Your task to perform on an android device: Install the Facebook app Image 0: 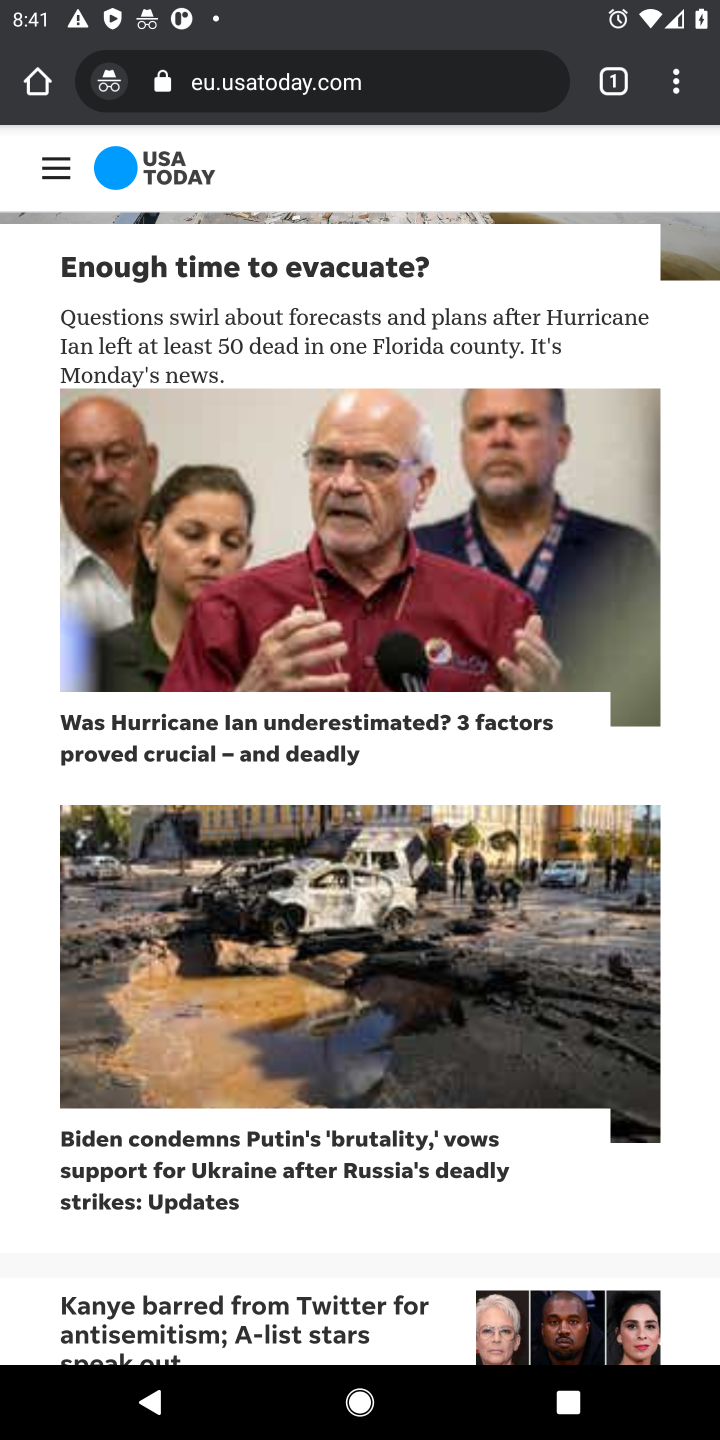
Step 0: press home button
Your task to perform on an android device: Install the Facebook app Image 1: 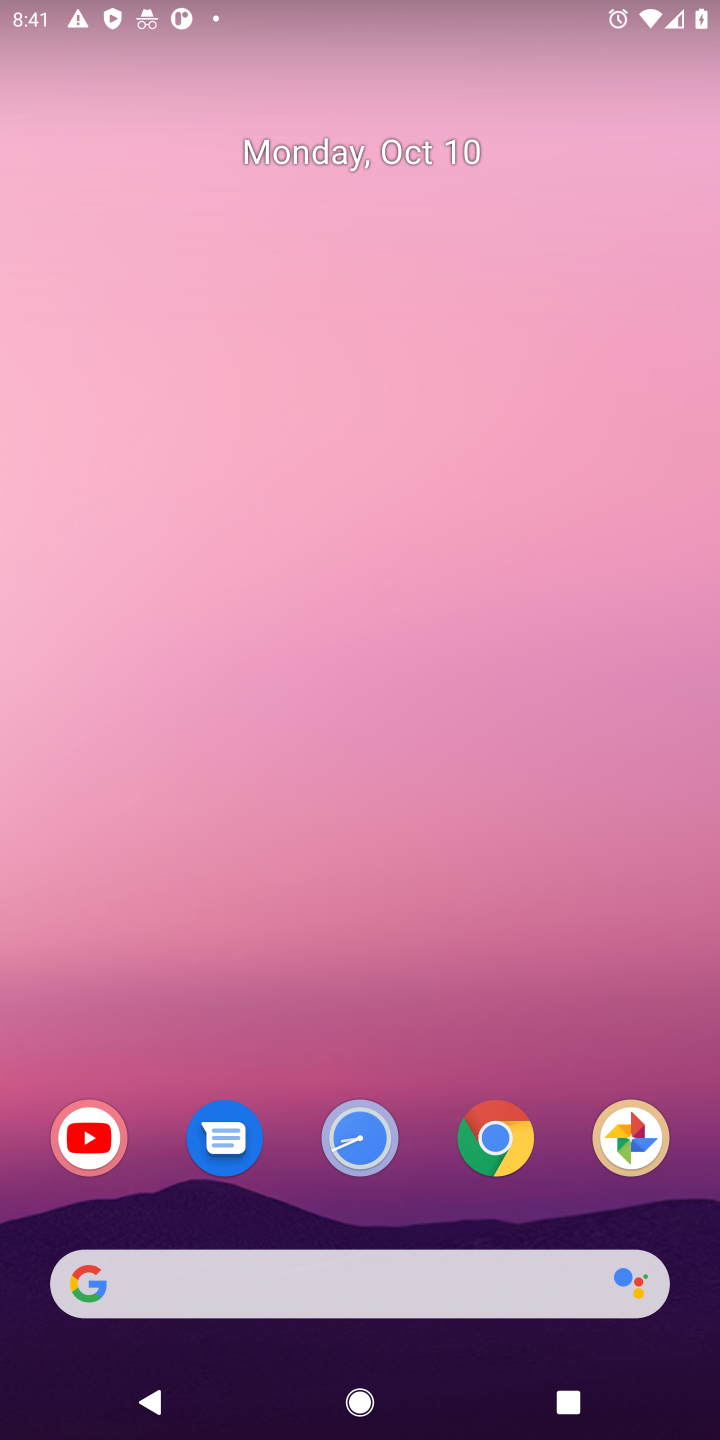
Step 1: drag from (404, 1203) to (459, 213)
Your task to perform on an android device: Install the Facebook app Image 2: 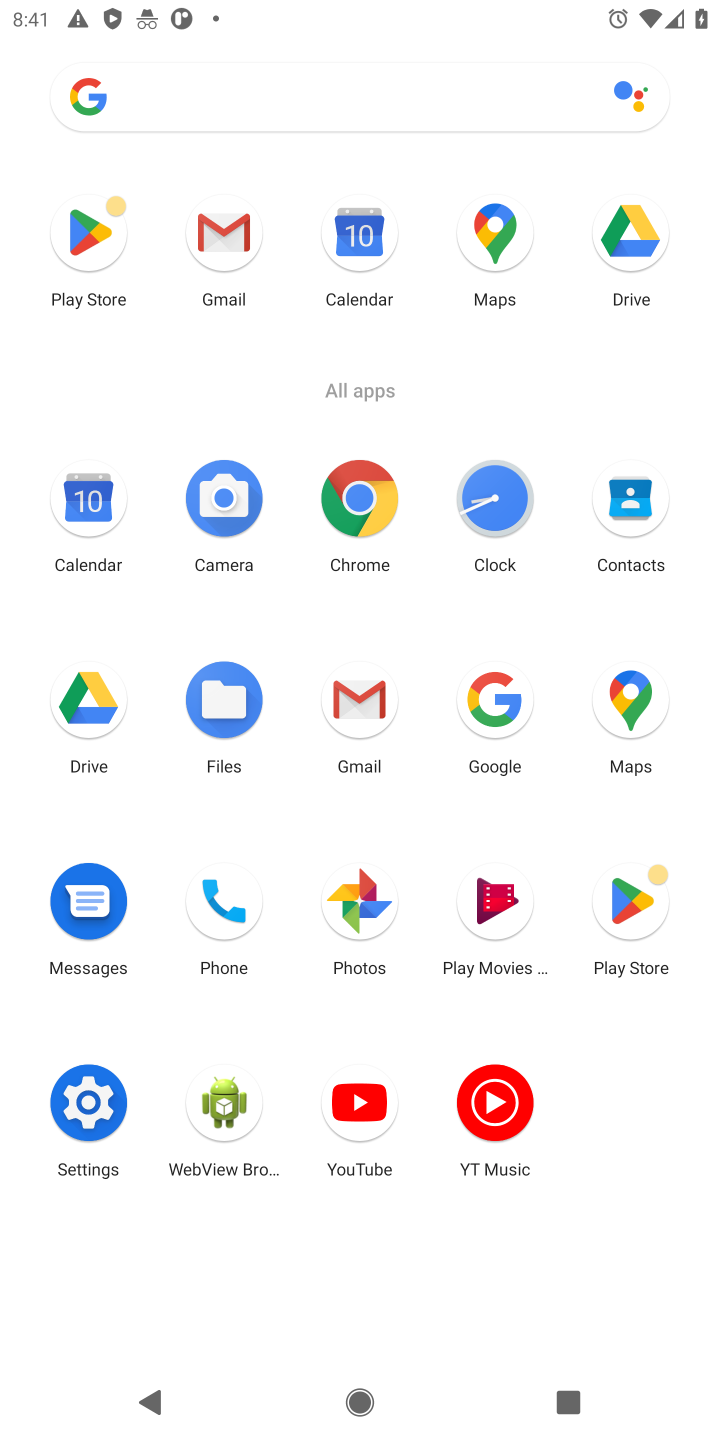
Step 2: click (631, 908)
Your task to perform on an android device: Install the Facebook app Image 3: 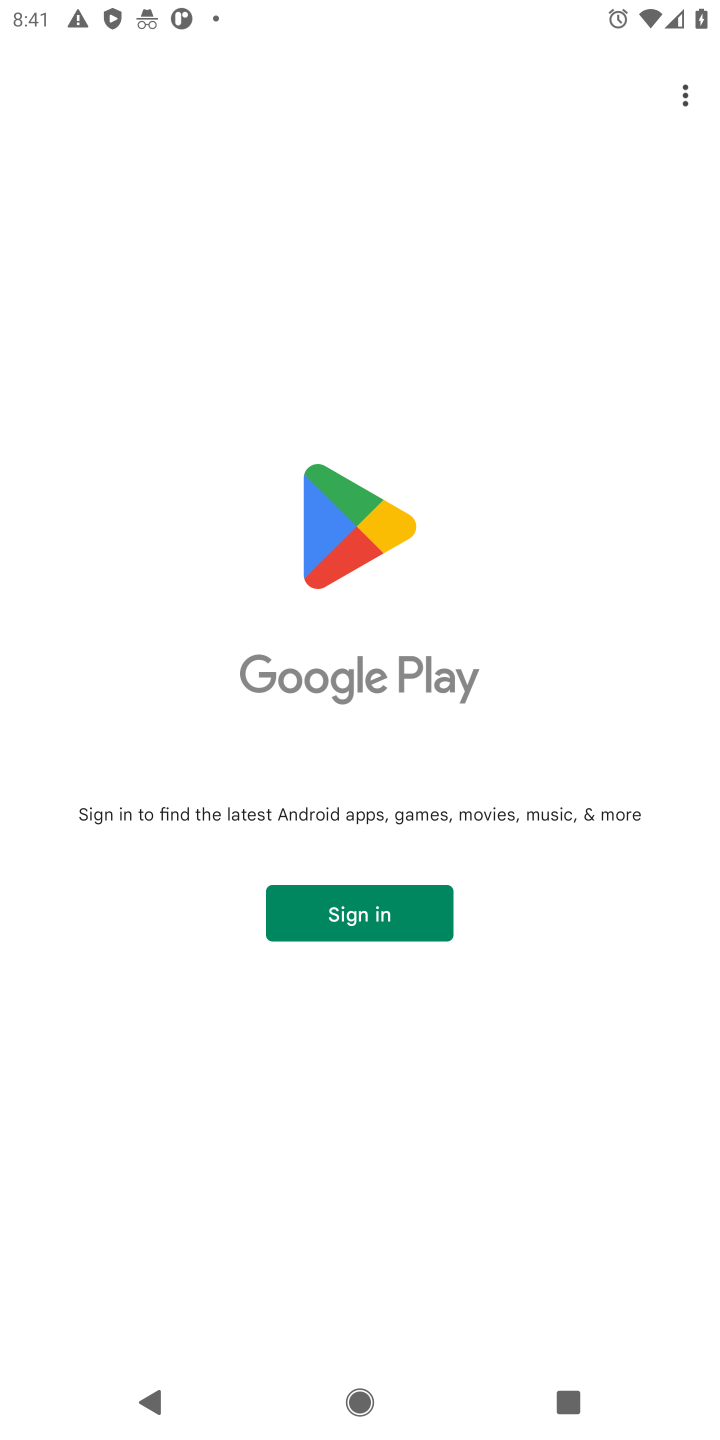
Step 3: click (387, 895)
Your task to perform on an android device: Install the Facebook app Image 4: 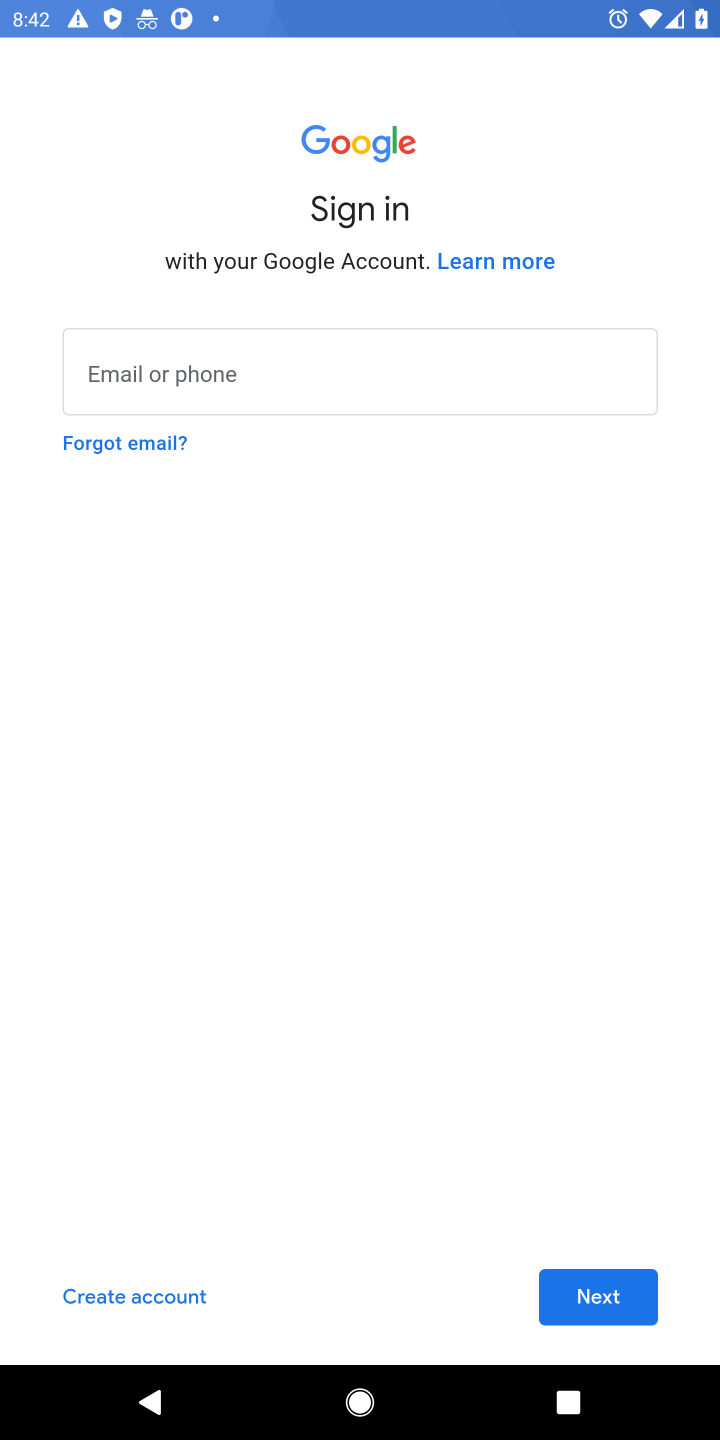
Step 4: task complete